Your task to perform on an android device: Open CNN.com Image 0: 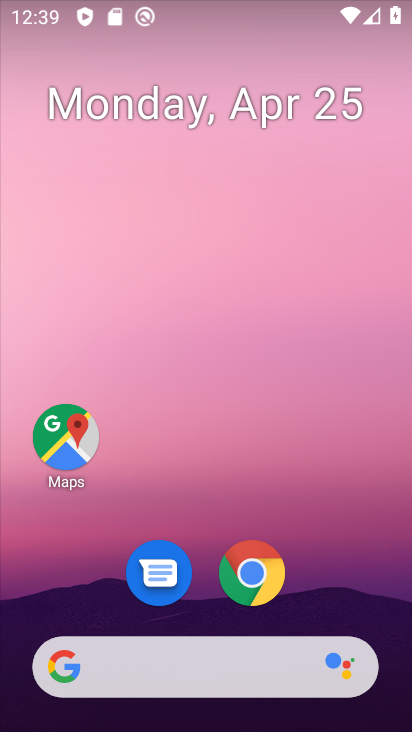
Step 0: click (251, 586)
Your task to perform on an android device: Open CNN.com Image 1: 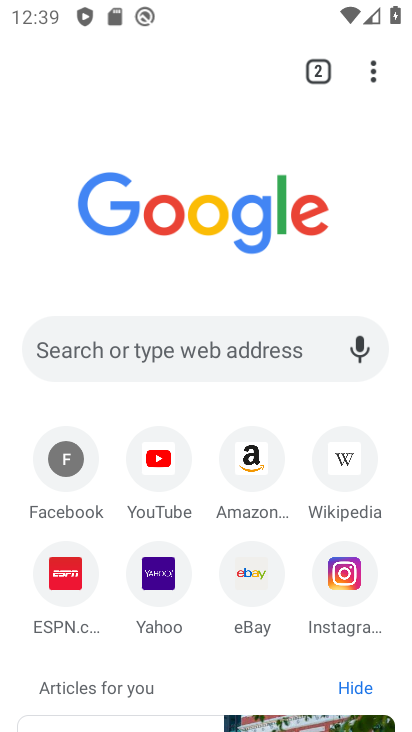
Step 1: click (165, 348)
Your task to perform on an android device: Open CNN.com Image 2: 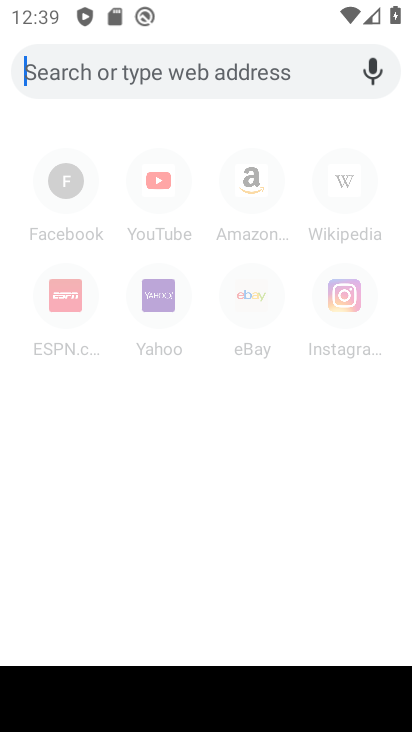
Step 2: type "cnn.com"
Your task to perform on an android device: Open CNN.com Image 3: 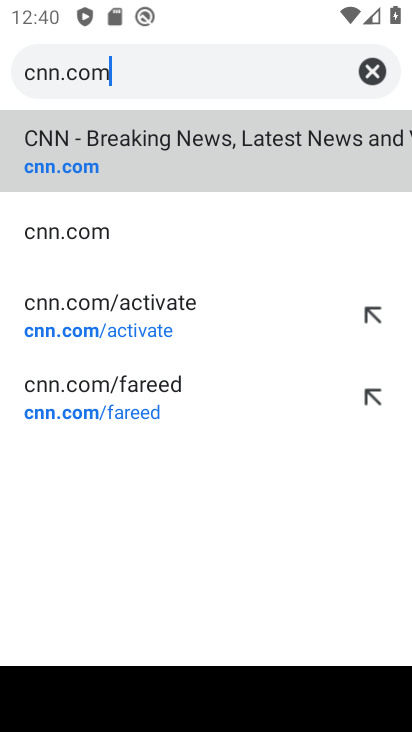
Step 3: click (133, 160)
Your task to perform on an android device: Open CNN.com Image 4: 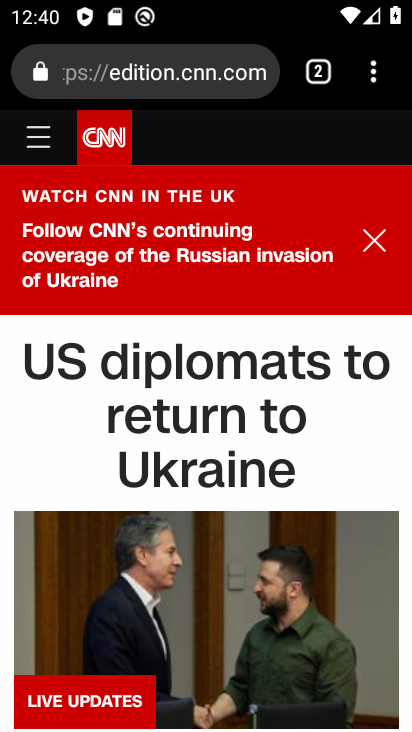
Step 4: task complete